Your task to perform on an android device: Open Youtube and go to the subscriptions tab Image 0: 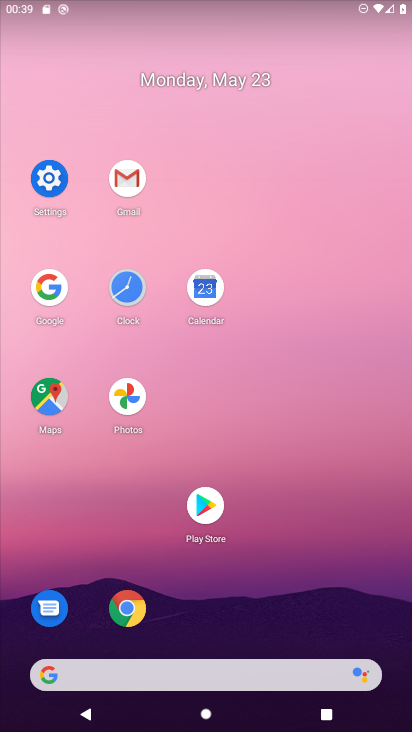
Step 0: drag from (206, 370) to (185, 78)
Your task to perform on an android device: Open Youtube and go to the subscriptions tab Image 1: 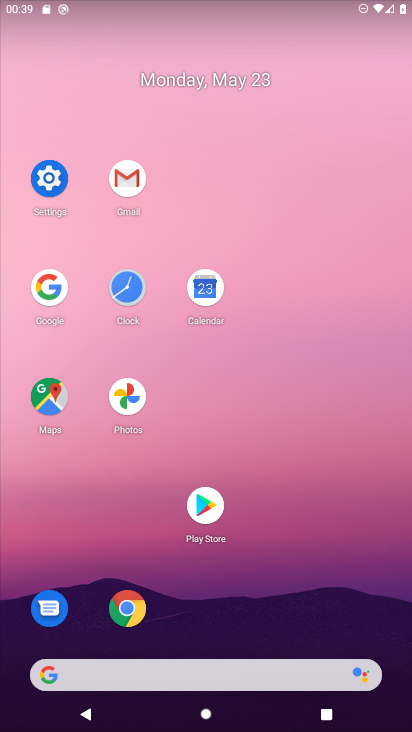
Step 1: drag from (278, 650) to (177, 142)
Your task to perform on an android device: Open Youtube and go to the subscriptions tab Image 2: 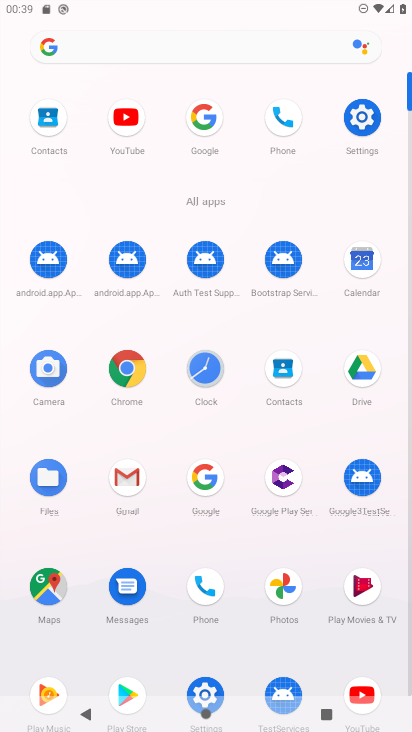
Step 2: click (367, 685)
Your task to perform on an android device: Open Youtube and go to the subscriptions tab Image 3: 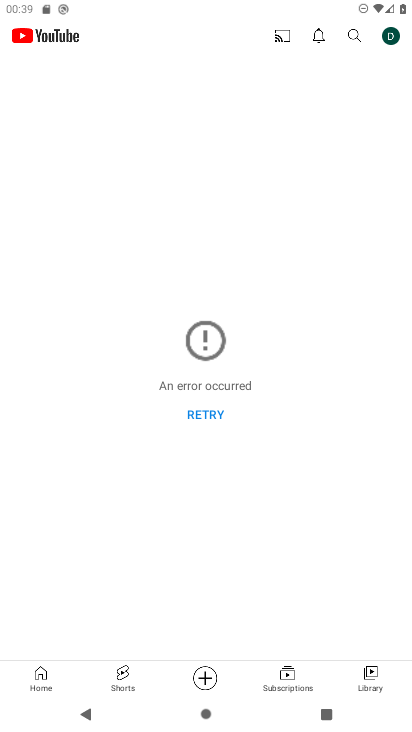
Step 3: drag from (365, 683) to (285, 683)
Your task to perform on an android device: Open Youtube and go to the subscriptions tab Image 4: 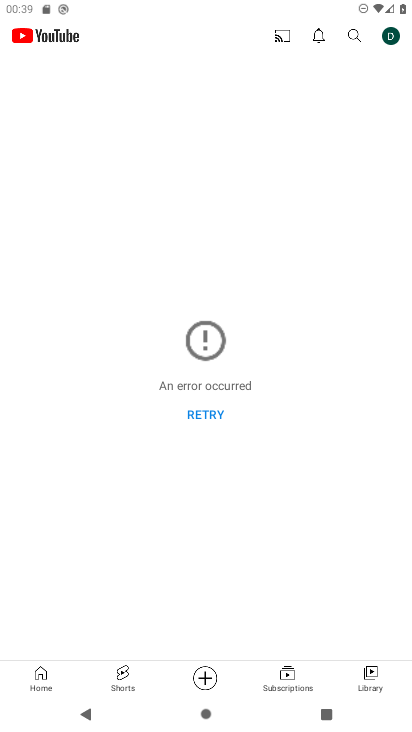
Step 4: click (284, 681)
Your task to perform on an android device: Open Youtube and go to the subscriptions tab Image 5: 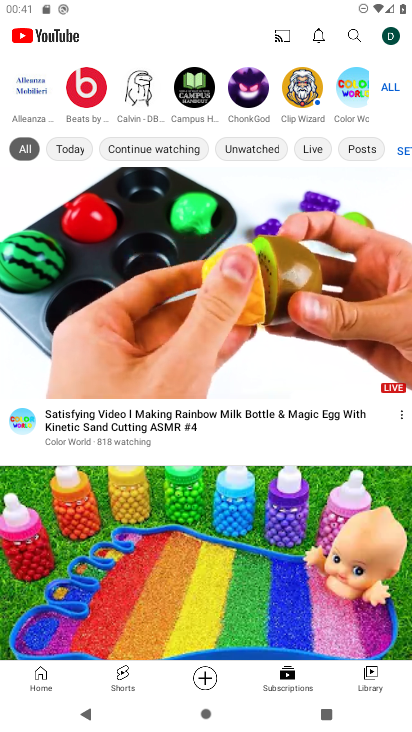
Step 5: task complete